Your task to perform on an android device: change the clock style Image 0: 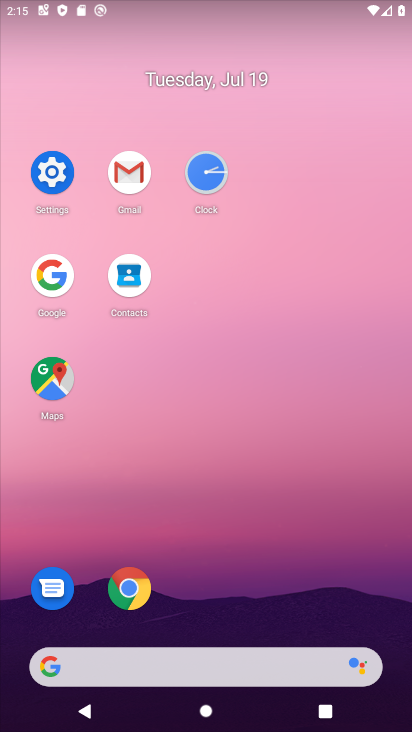
Step 0: click (212, 192)
Your task to perform on an android device: change the clock style Image 1: 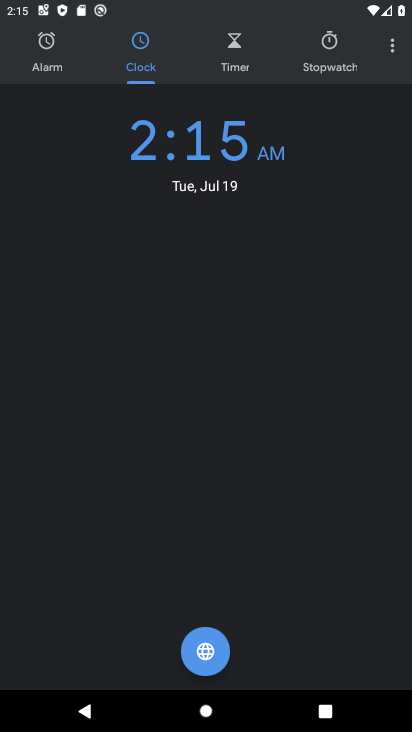
Step 1: click (391, 49)
Your task to perform on an android device: change the clock style Image 2: 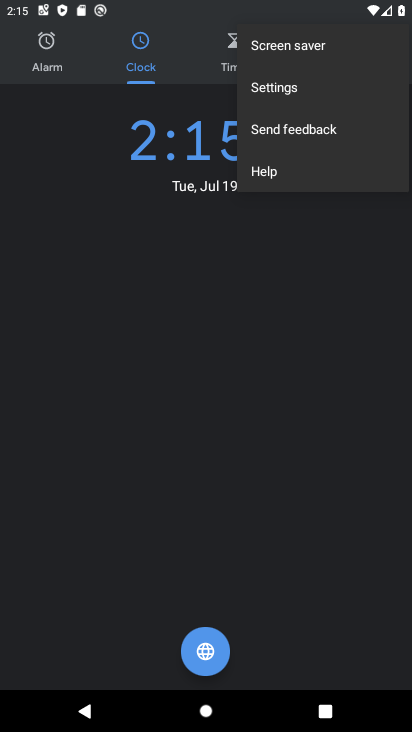
Step 2: click (307, 81)
Your task to perform on an android device: change the clock style Image 3: 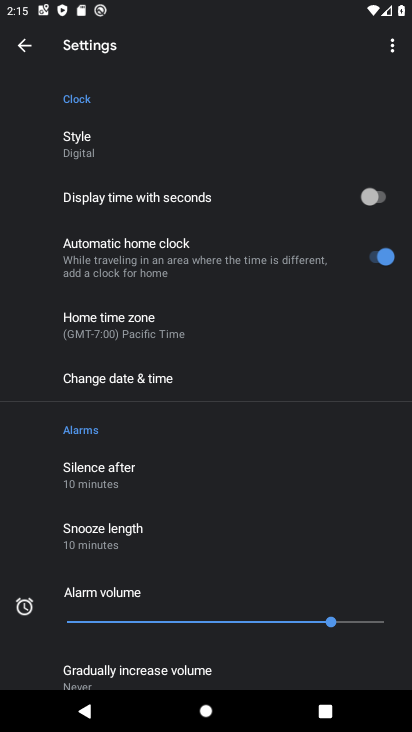
Step 3: click (121, 132)
Your task to perform on an android device: change the clock style Image 4: 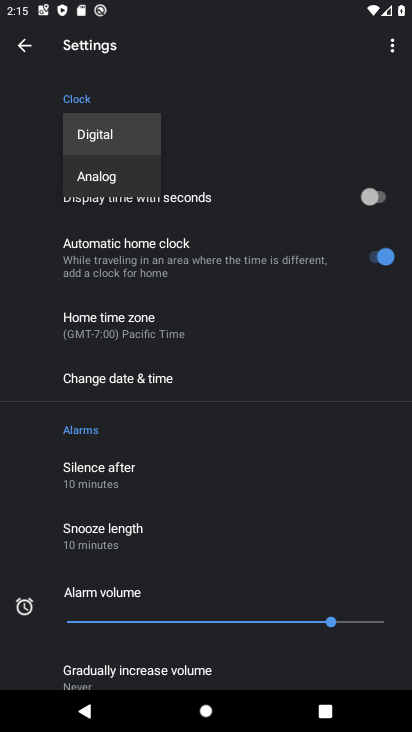
Step 4: click (122, 169)
Your task to perform on an android device: change the clock style Image 5: 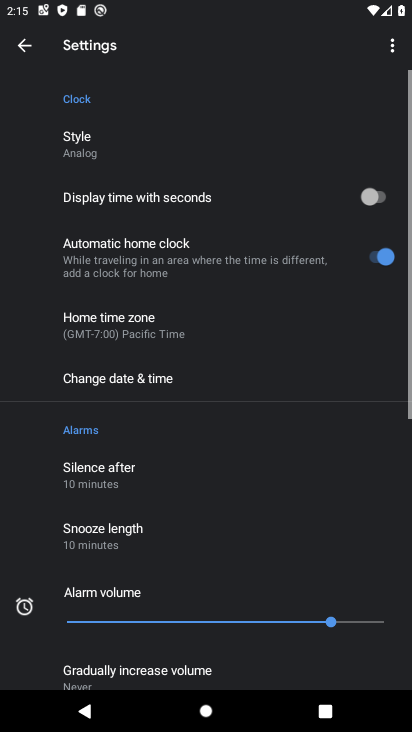
Step 5: task complete